Your task to perform on an android device: set the timer Image 0: 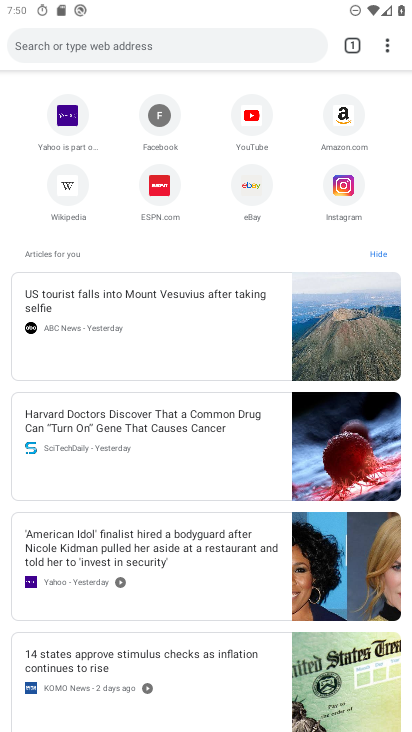
Step 0: press home button
Your task to perform on an android device: set the timer Image 1: 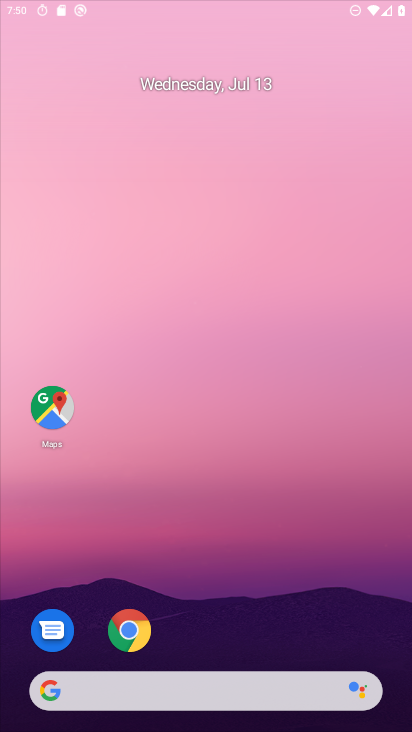
Step 1: drag from (379, 708) to (270, 55)
Your task to perform on an android device: set the timer Image 2: 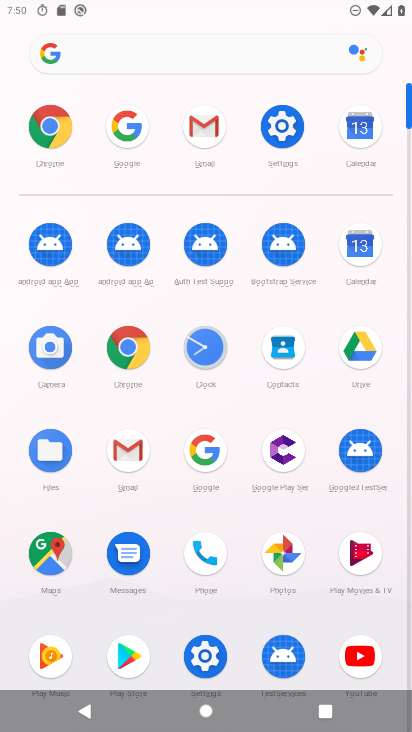
Step 2: click (196, 349)
Your task to perform on an android device: set the timer Image 3: 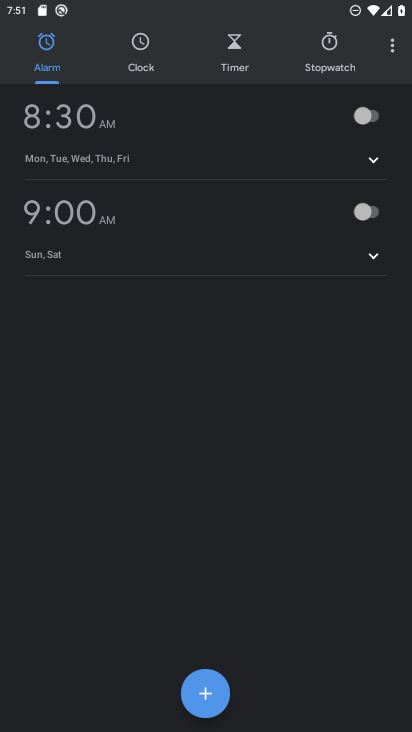
Step 3: click (230, 57)
Your task to perform on an android device: set the timer Image 4: 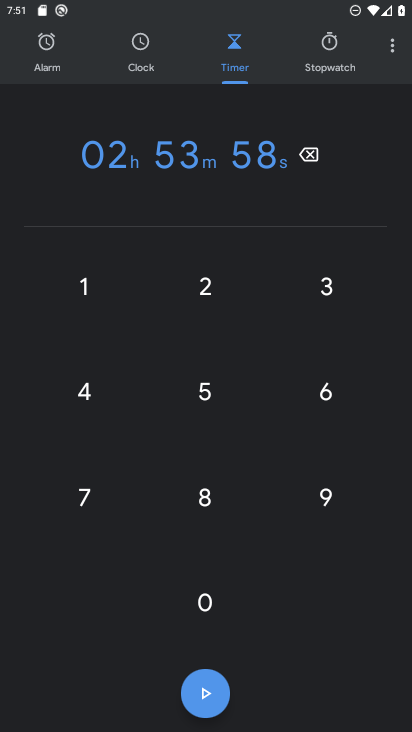
Step 4: task complete